Your task to perform on an android device: Go to settings Image 0: 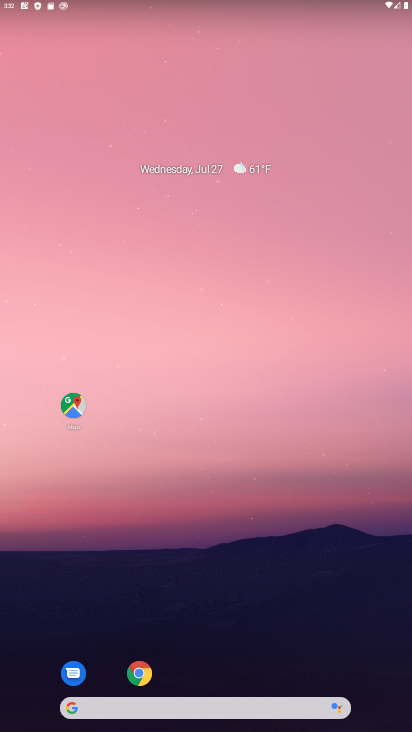
Step 0: drag from (357, 646) to (284, 187)
Your task to perform on an android device: Go to settings Image 1: 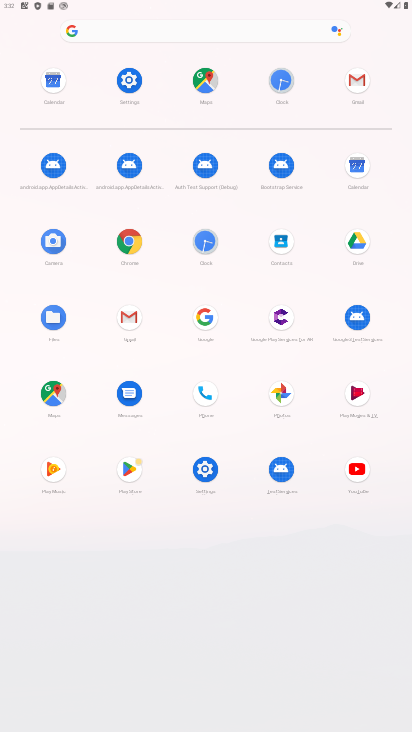
Step 1: click (207, 474)
Your task to perform on an android device: Go to settings Image 2: 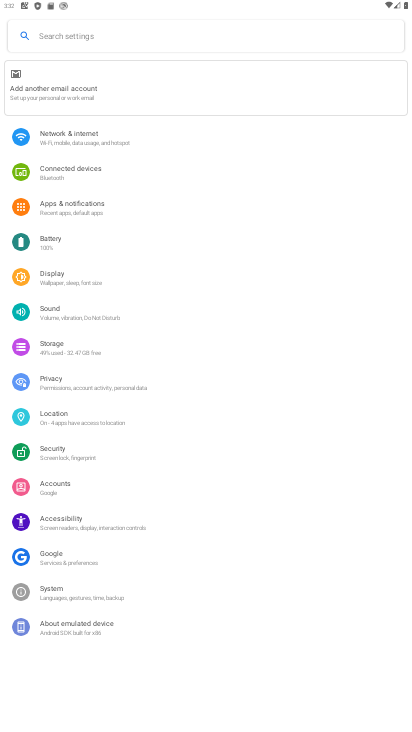
Step 2: task complete